Your task to perform on an android device: Open ESPN.com Image 0: 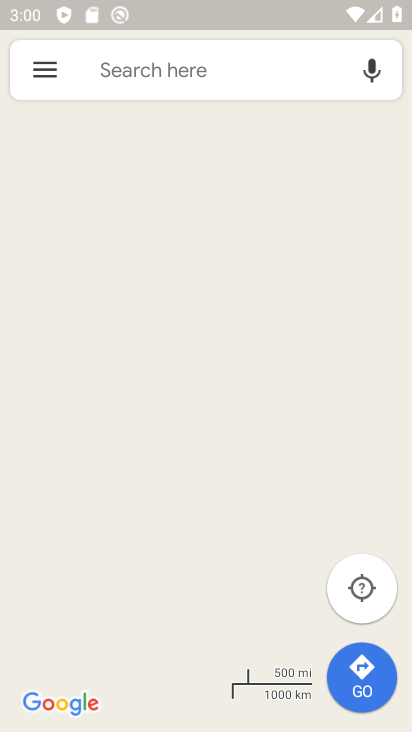
Step 0: press home button
Your task to perform on an android device: Open ESPN.com Image 1: 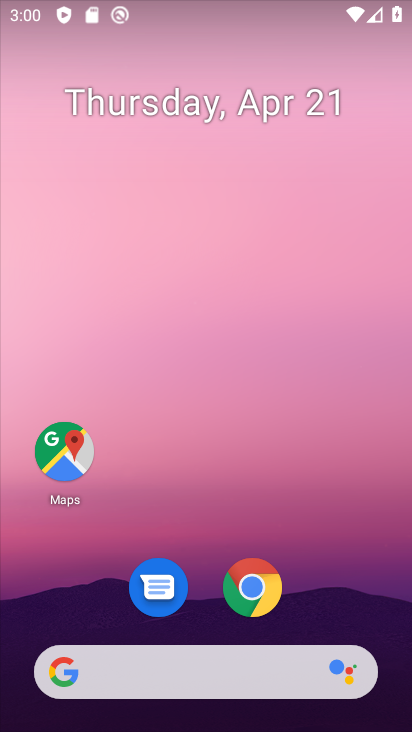
Step 1: click (245, 578)
Your task to perform on an android device: Open ESPN.com Image 2: 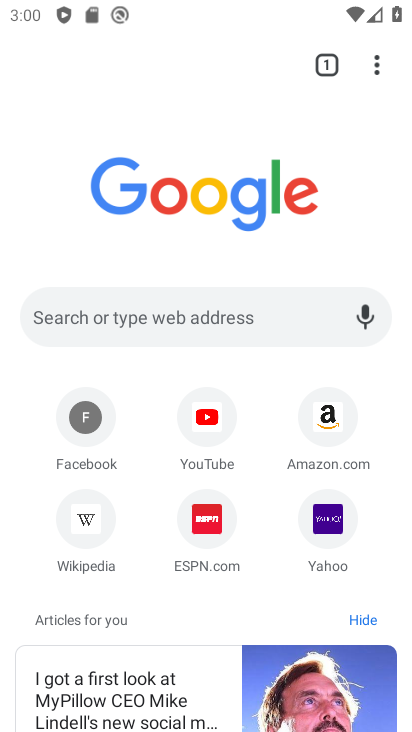
Step 2: click (203, 536)
Your task to perform on an android device: Open ESPN.com Image 3: 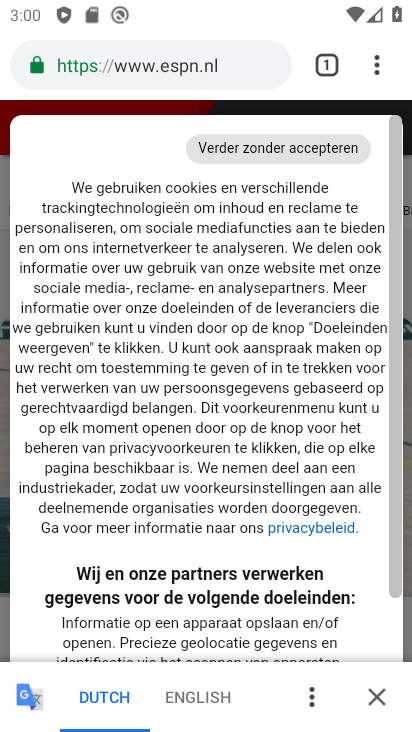
Step 3: task complete